Your task to perform on an android device: Open location settings Image 0: 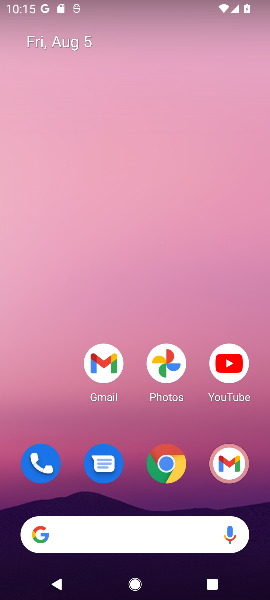
Step 0: drag from (168, 571) to (140, 167)
Your task to perform on an android device: Open location settings Image 1: 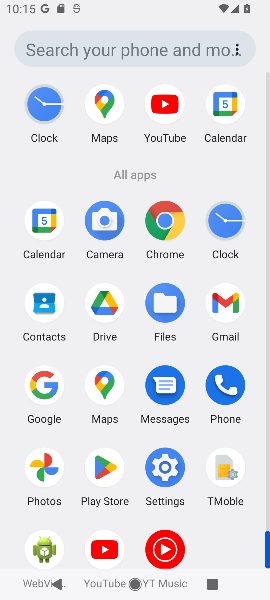
Step 1: drag from (172, 435) to (169, 270)
Your task to perform on an android device: Open location settings Image 2: 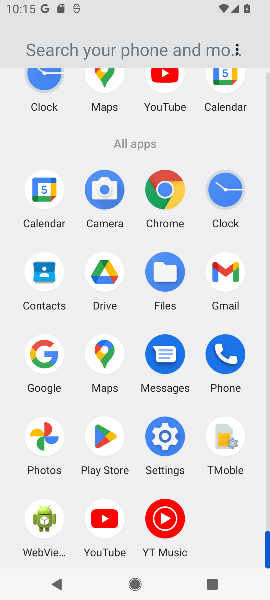
Step 2: click (156, 441)
Your task to perform on an android device: Open location settings Image 3: 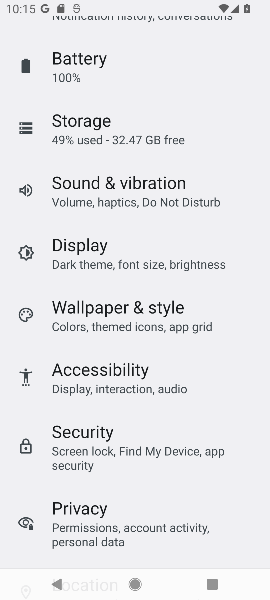
Step 3: press back button
Your task to perform on an android device: Open location settings Image 4: 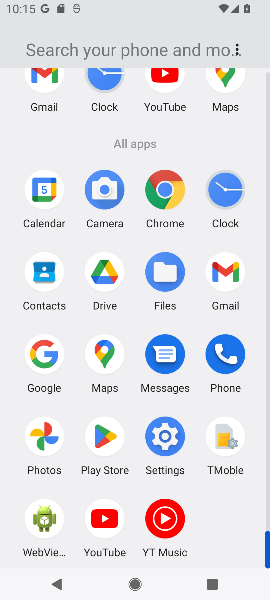
Step 4: press home button
Your task to perform on an android device: Open location settings Image 5: 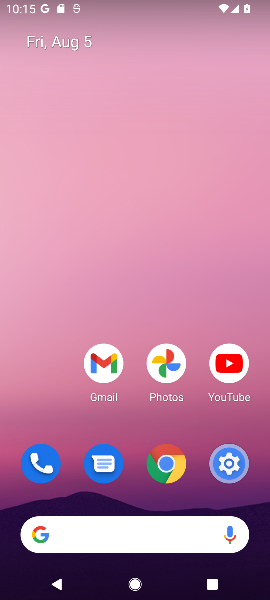
Step 5: press back button
Your task to perform on an android device: Open location settings Image 6: 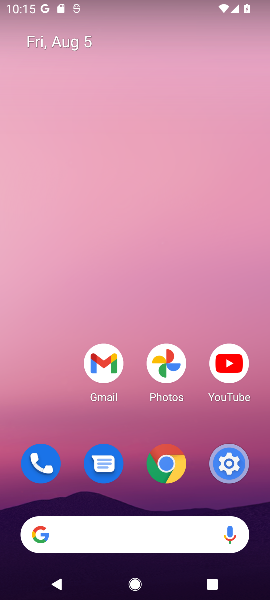
Step 6: drag from (170, 566) to (102, 165)
Your task to perform on an android device: Open location settings Image 7: 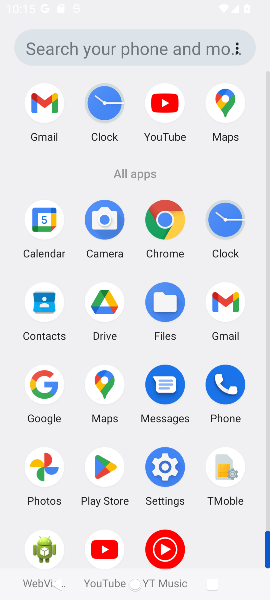
Step 7: drag from (158, 457) to (124, 174)
Your task to perform on an android device: Open location settings Image 8: 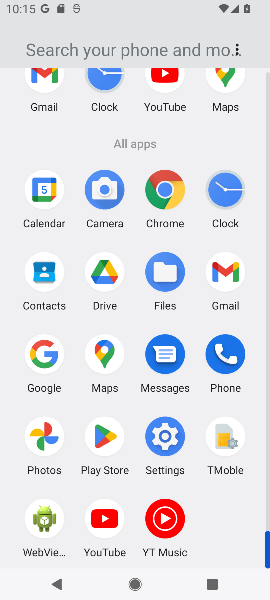
Step 8: click (153, 444)
Your task to perform on an android device: Open location settings Image 9: 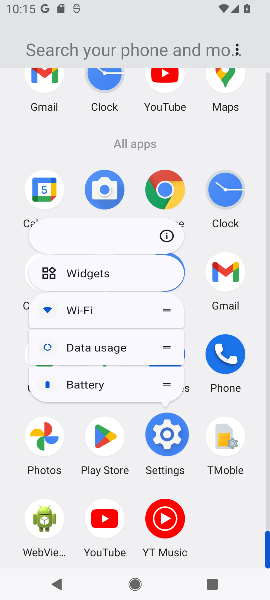
Step 9: click (156, 442)
Your task to perform on an android device: Open location settings Image 10: 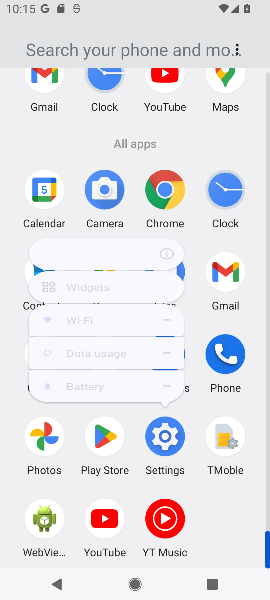
Step 10: click (157, 441)
Your task to perform on an android device: Open location settings Image 11: 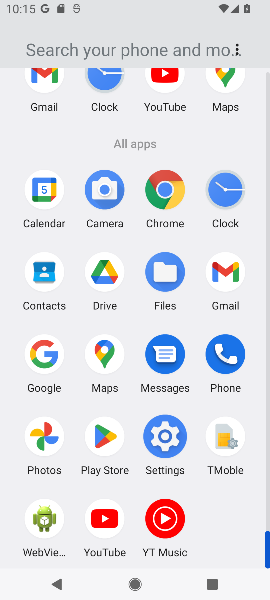
Step 11: click (159, 441)
Your task to perform on an android device: Open location settings Image 12: 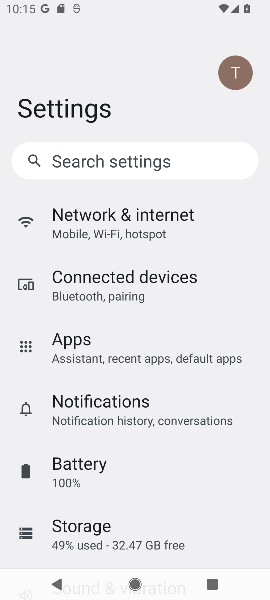
Step 12: click (162, 438)
Your task to perform on an android device: Open location settings Image 13: 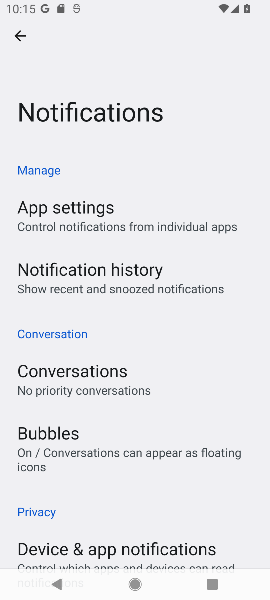
Step 13: click (22, 33)
Your task to perform on an android device: Open location settings Image 14: 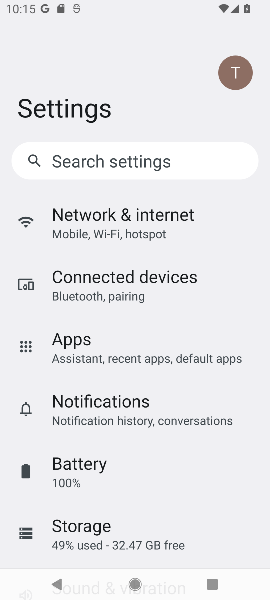
Step 14: drag from (93, 511) to (73, 276)
Your task to perform on an android device: Open location settings Image 15: 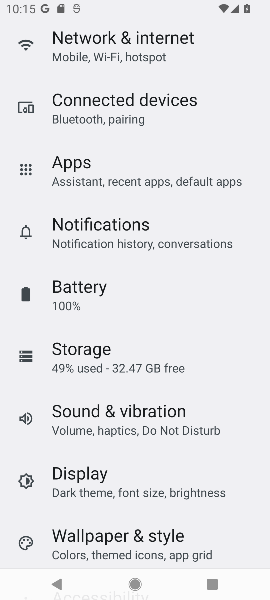
Step 15: drag from (166, 385) to (101, 162)
Your task to perform on an android device: Open location settings Image 16: 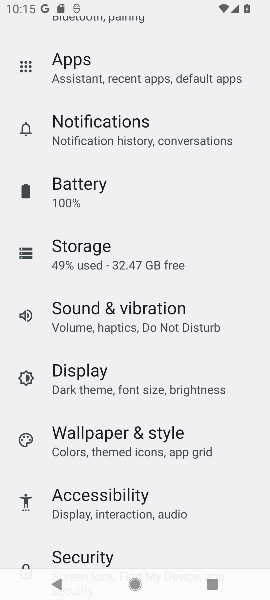
Step 16: drag from (138, 380) to (120, 248)
Your task to perform on an android device: Open location settings Image 17: 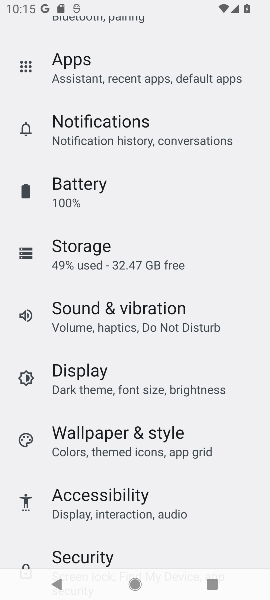
Step 17: drag from (119, 305) to (86, 172)
Your task to perform on an android device: Open location settings Image 18: 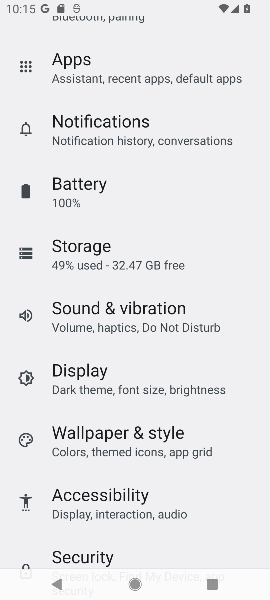
Step 18: drag from (136, 343) to (109, 114)
Your task to perform on an android device: Open location settings Image 19: 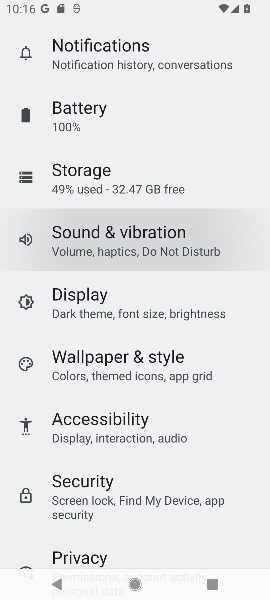
Step 19: drag from (144, 405) to (67, 67)
Your task to perform on an android device: Open location settings Image 20: 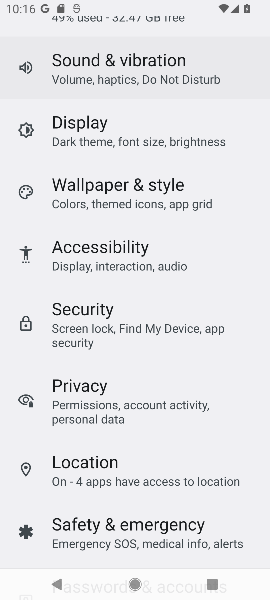
Step 20: drag from (154, 402) to (121, 153)
Your task to perform on an android device: Open location settings Image 21: 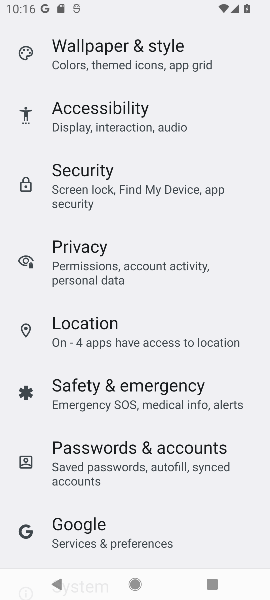
Step 21: click (105, 332)
Your task to perform on an android device: Open location settings Image 22: 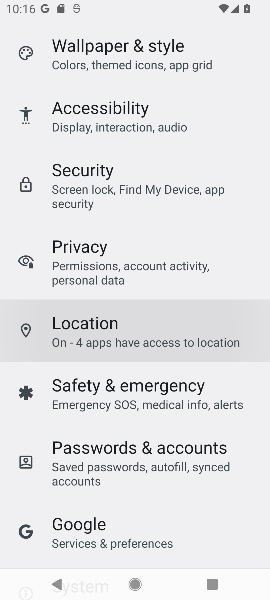
Step 22: click (105, 332)
Your task to perform on an android device: Open location settings Image 23: 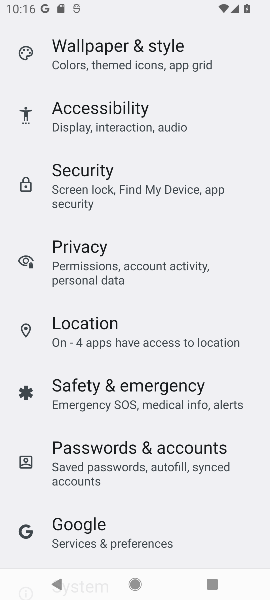
Step 23: click (105, 332)
Your task to perform on an android device: Open location settings Image 24: 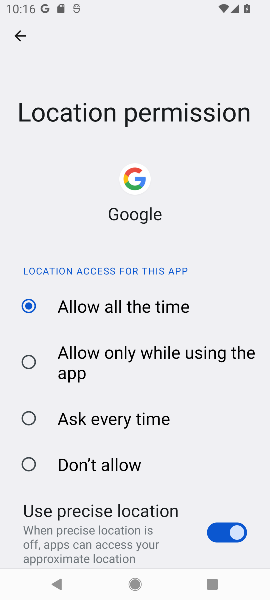
Step 24: drag from (113, 258) to (96, 139)
Your task to perform on an android device: Open location settings Image 25: 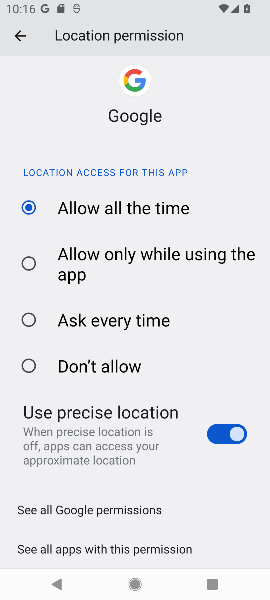
Step 25: click (19, 32)
Your task to perform on an android device: Open location settings Image 26: 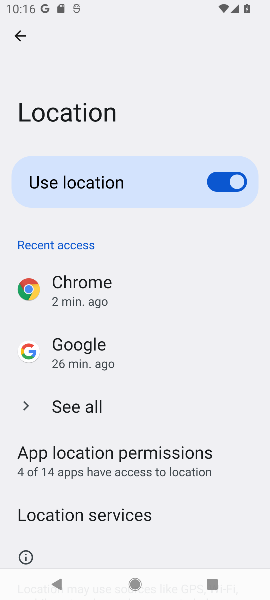
Step 26: click (20, 37)
Your task to perform on an android device: Open location settings Image 27: 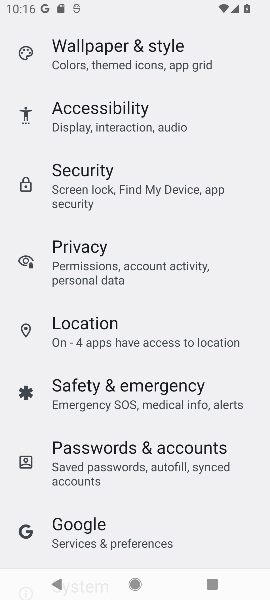
Step 27: click (120, 323)
Your task to perform on an android device: Open location settings Image 28: 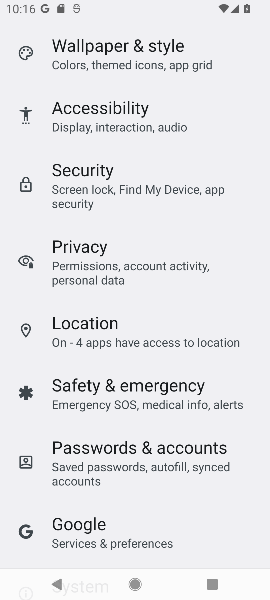
Step 28: click (119, 327)
Your task to perform on an android device: Open location settings Image 29: 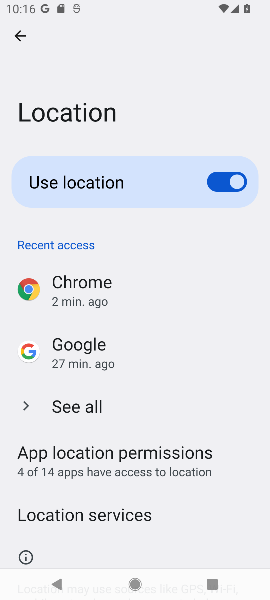
Step 29: task complete